Your task to perform on an android device: turn off notifications in google photos Image 0: 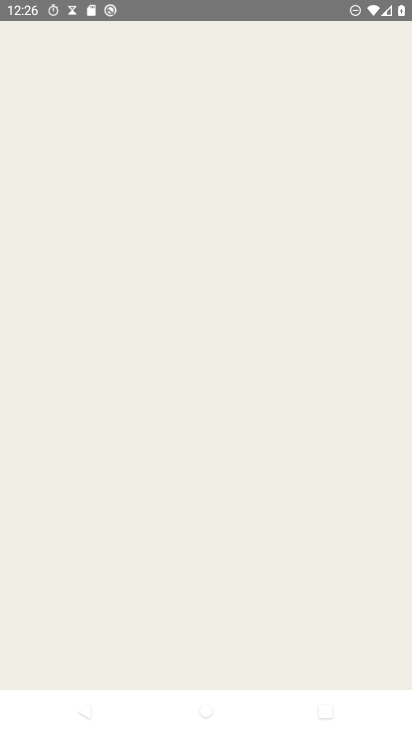
Step 0: click (338, 143)
Your task to perform on an android device: turn off notifications in google photos Image 1: 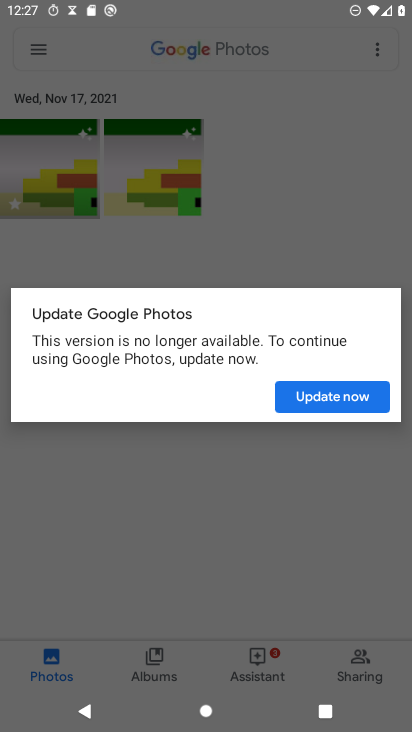
Step 1: click (325, 408)
Your task to perform on an android device: turn off notifications in google photos Image 2: 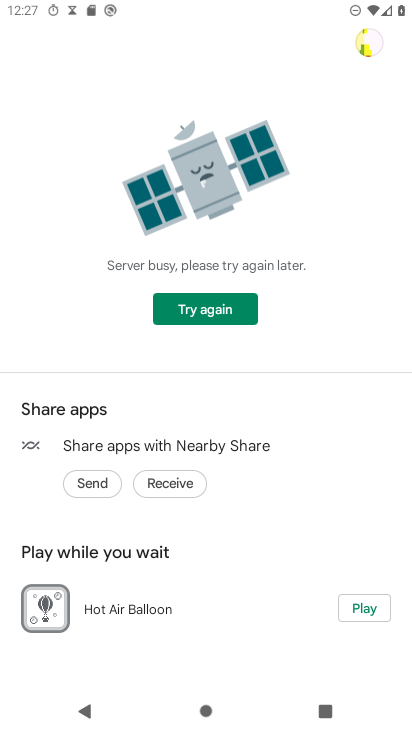
Step 2: click (234, 313)
Your task to perform on an android device: turn off notifications in google photos Image 3: 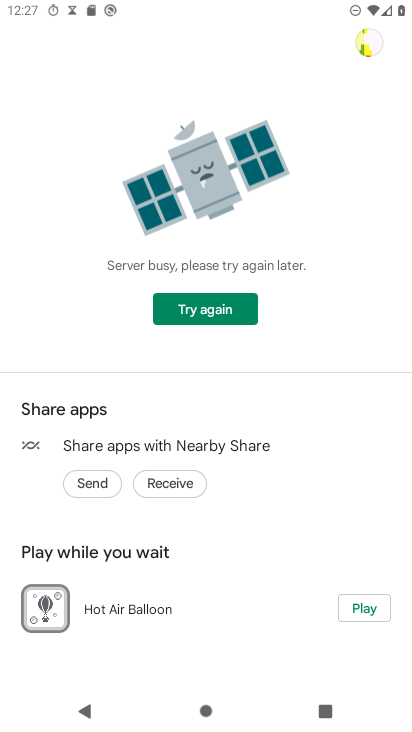
Step 3: click (234, 313)
Your task to perform on an android device: turn off notifications in google photos Image 4: 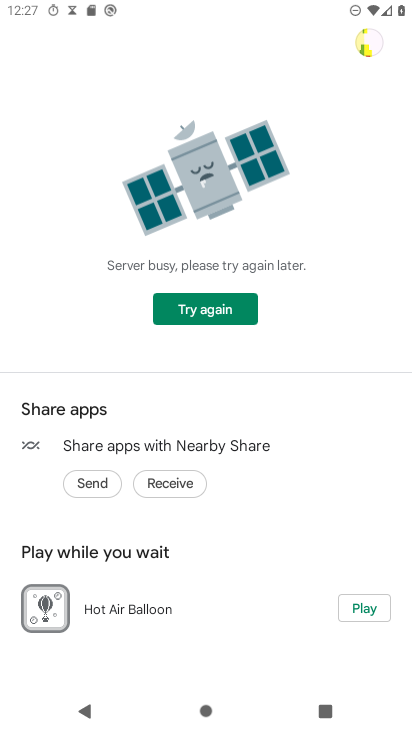
Step 4: click (234, 313)
Your task to perform on an android device: turn off notifications in google photos Image 5: 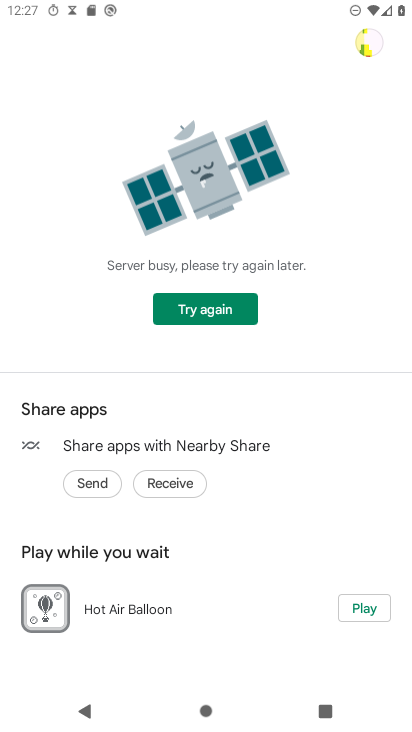
Step 5: click (234, 313)
Your task to perform on an android device: turn off notifications in google photos Image 6: 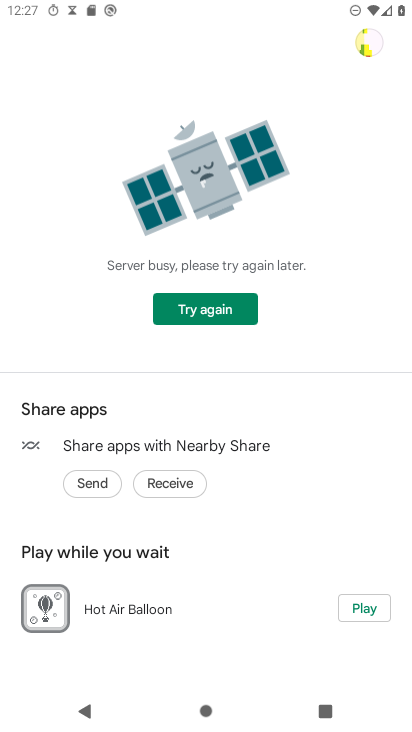
Step 6: click (234, 313)
Your task to perform on an android device: turn off notifications in google photos Image 7: 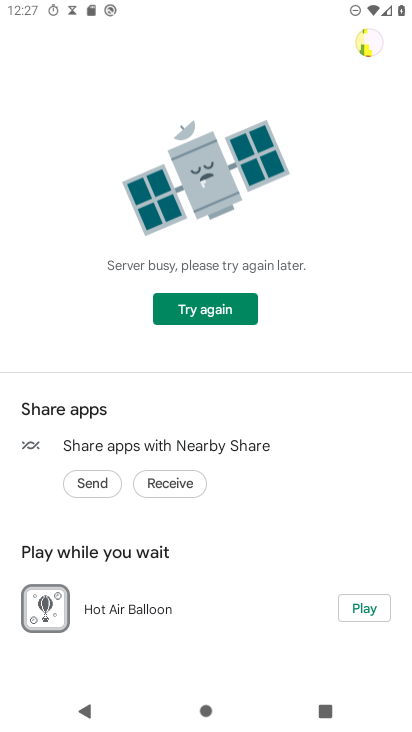
Step 7: click (234, 313)
Your task to perform on an android device: turn off notifications in google photos Image 8: 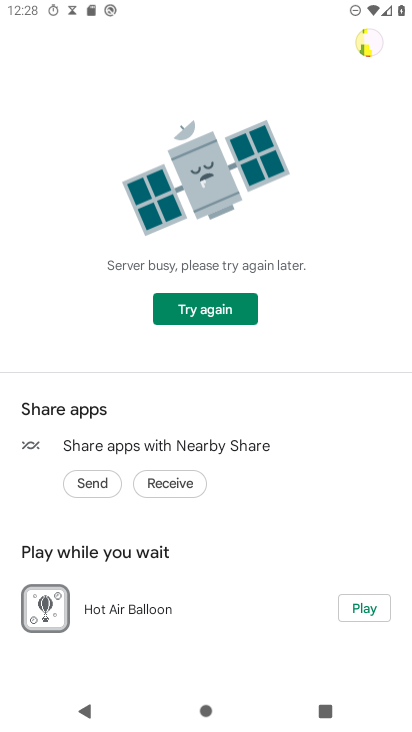
Step 8: task complete